Your task to perform on an android device: Open calendar and show me the first week of next month Image 0: 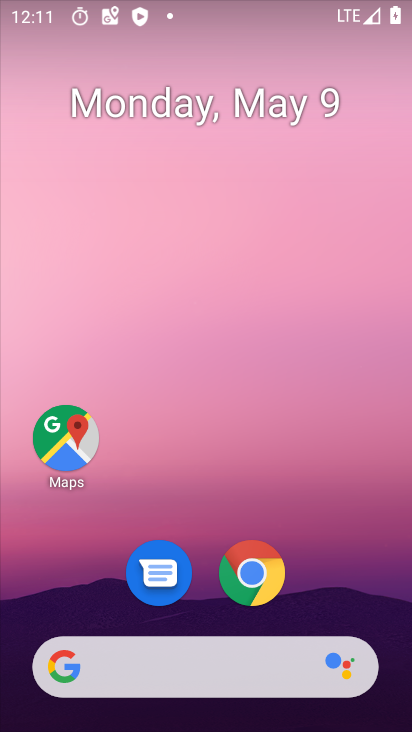
Step 0: drag from (322, 558) to (205, 10)
Your task to perform on an android device: Open calendar and show me the first week of next month Image 1: 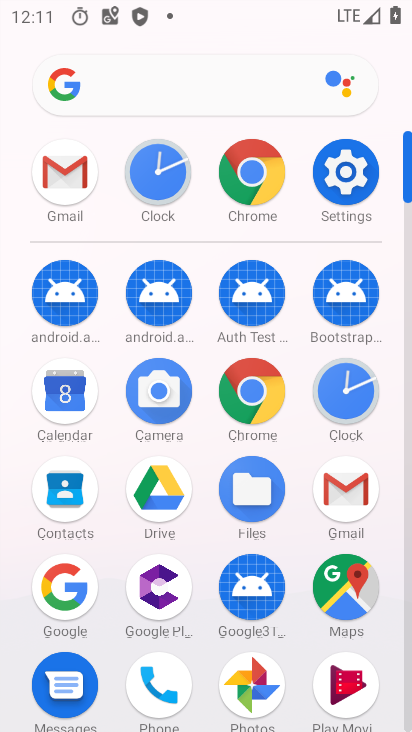
Step 1: drag from (17, 641) to (13, 353)
Your task to perform on an android device: Open calendar and show me the first week of next month Image 2: 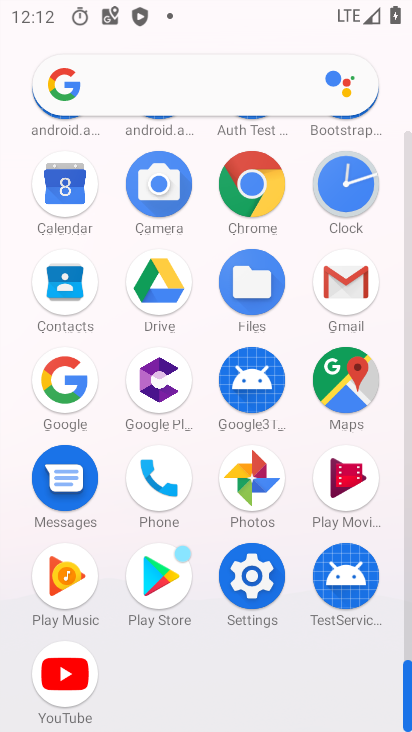
Step 2: click (67, 184)
Your task to perform on an android device: Open calendar and show me the first week of next month Image 3: 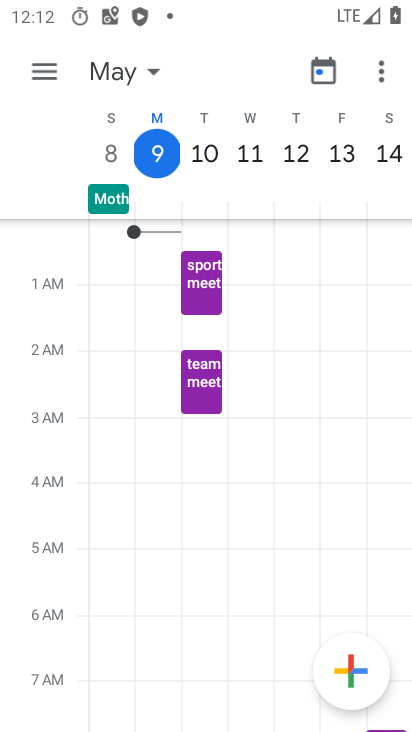
Step 3: click (122, 68)
Your task to perform on an android device: Open calendar and show me the first week of next month Image 4: 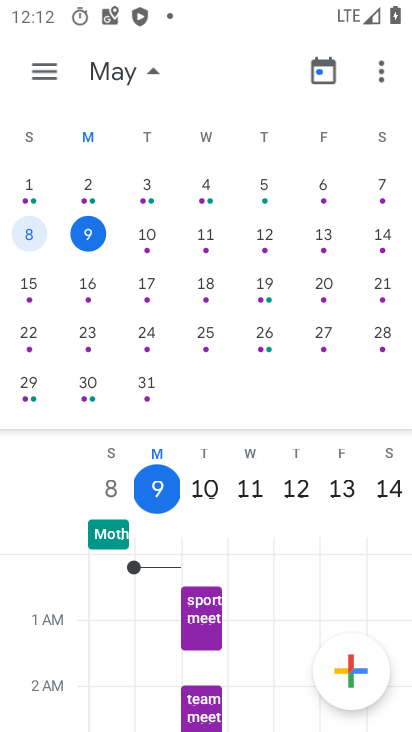
Step 4: drag from (335, 203) to (0, 19)
Your task to perform on an android device: Open calendar and show me the first week of next month Image 5: 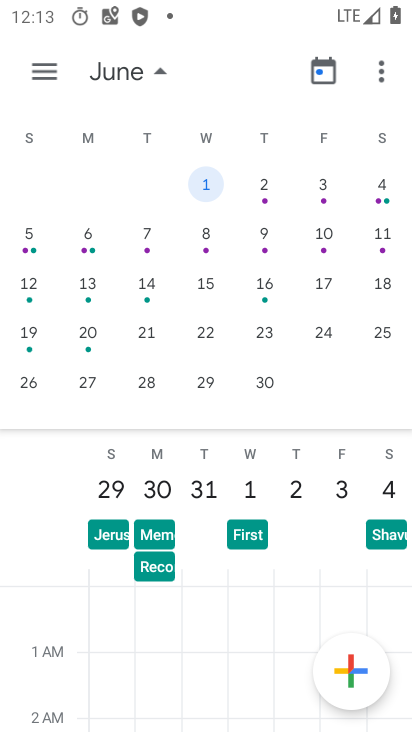
Step 5: click (30, 71)
Your task to perform on an android device: Open calendar and show me the first week of next month Image 6: 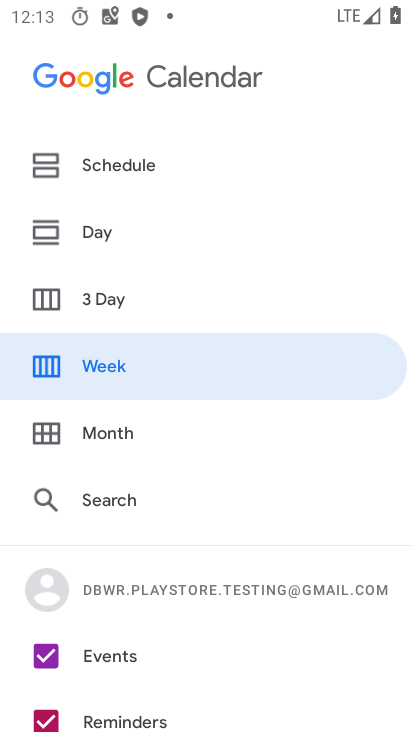
Step 6: click (97, 363)
Your task to perform on an android device: Open calendar and show me the first week of next month Image 7: 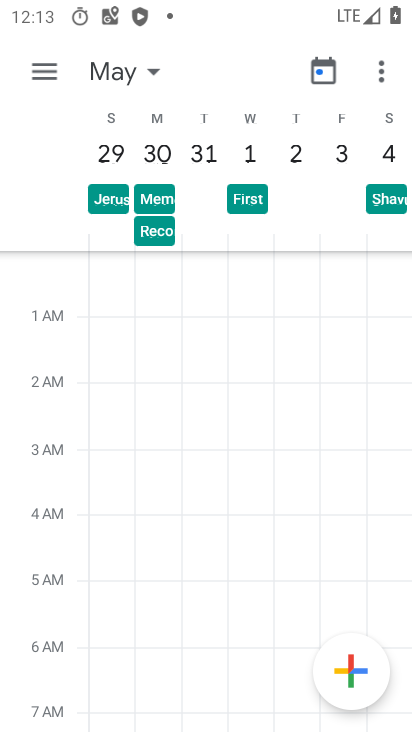
Step 7: task complete